Your task to perform on an android device: Search for pizza restaurants on Maps Image 0: 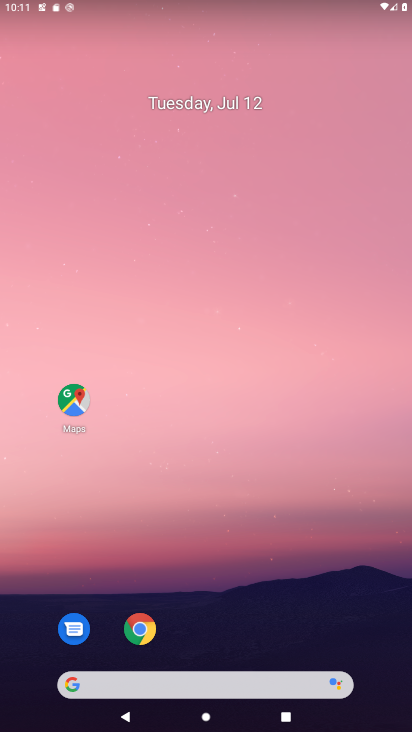
Step 0: drag from (134, 682) to (410, 347)
Your task to perform on an android device: Search for pizza restaurants on Maps Image 1: 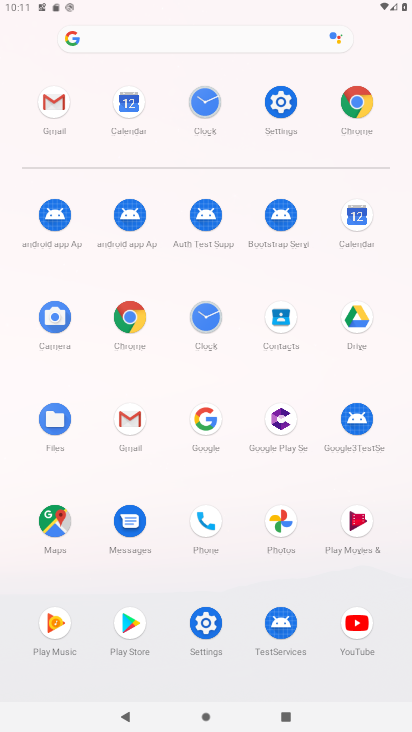
Step 1: click (62, 527)
Your task to perform on an android device: Search for pizza restaurants on Maps Image 2: 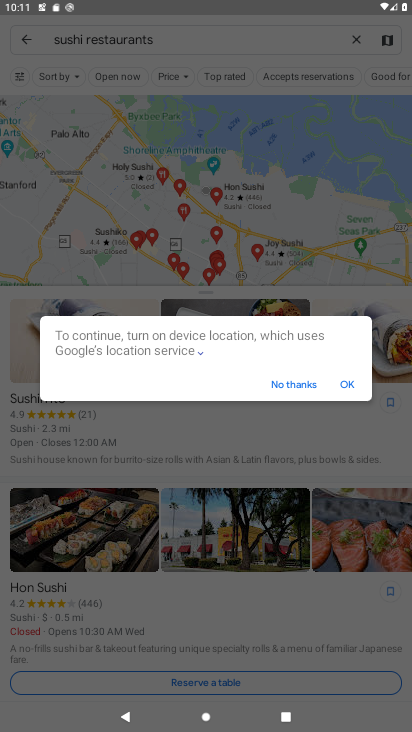
Step 2: click (350, 30)
Your task to perform on an android device: Search for pizza restaurants on Maps Image 3: 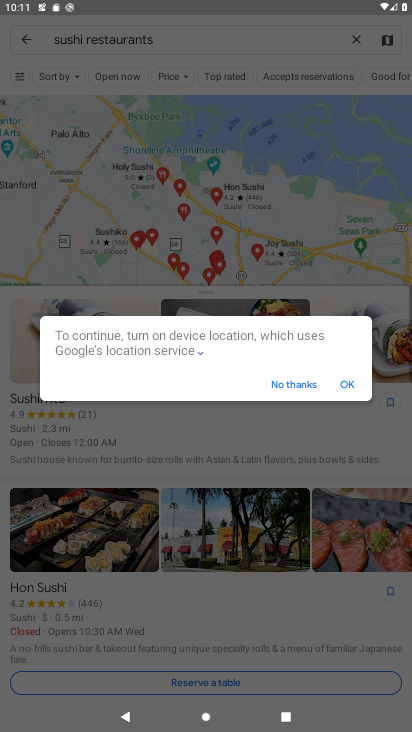
Step 3: click (303, 379)
Your task to perform on an android device: Search for pizza restaurants on Maps Image 4: 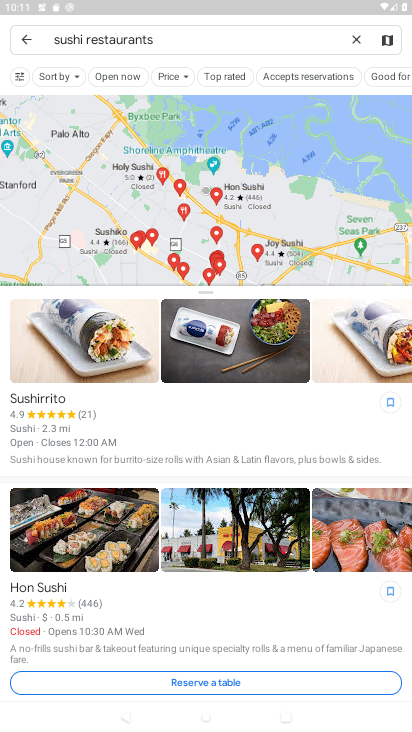
Step 4: click (354, 37)
Your task to perform on an android device: Search for pizza restaurants on Maps Image 5: 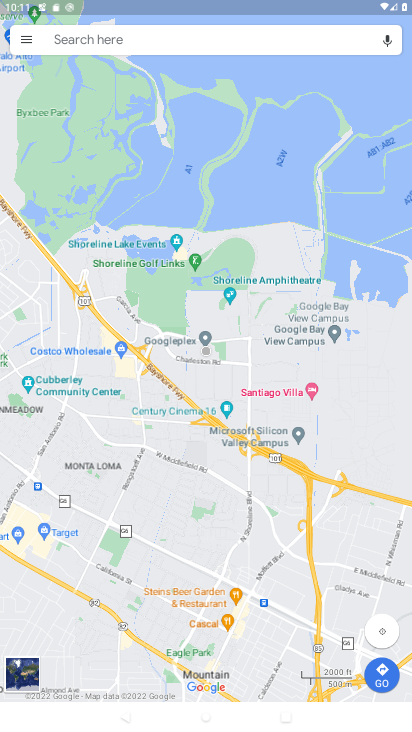
Step 5: click (300, 48)
Your task to perform on an android device: Search for pizza restaurants on Maps Image 6: 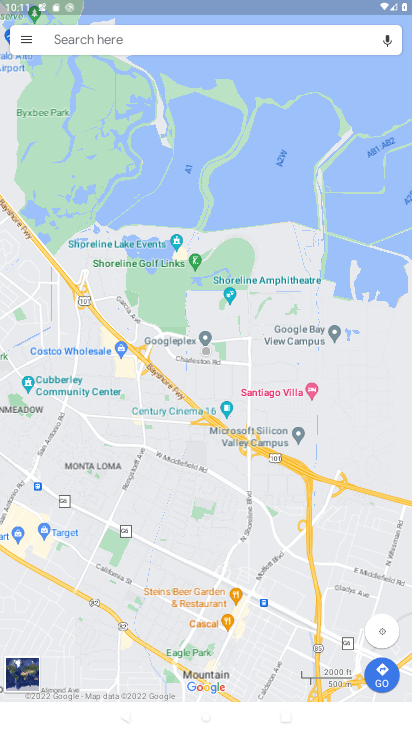
Step 6: click (300, 48)
Your task to perform on an android device: Search for pizza restaurants on Maps Image 7: 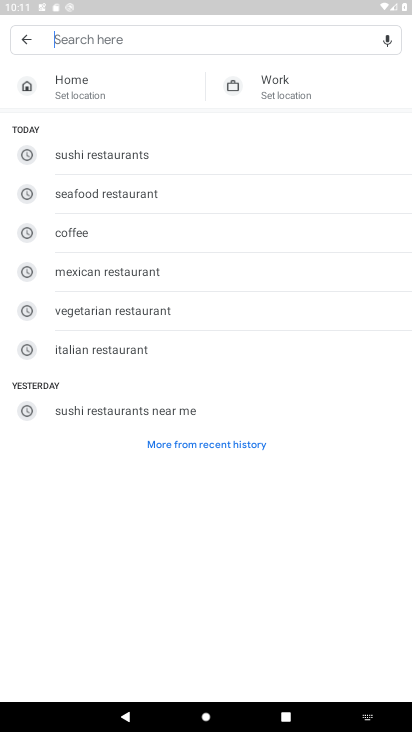
Step 7: type "pizza restaurant"
Your task to perform on an android device: Search for pizza restaurants on Maps Image 8: 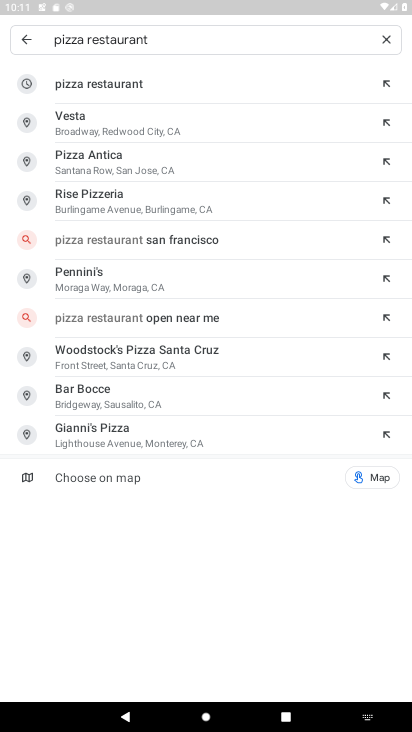
Step 8: click (92, 90)
Your task to perform on an android device: Search for pizza restaurants on Maps Image 9: 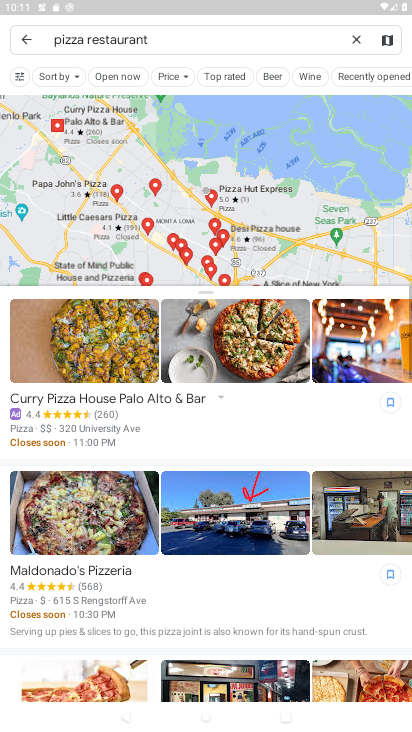
Step 9: task complete